Your task to perform on an android device: Search for seafood restaurants on Google Maps Image 0: 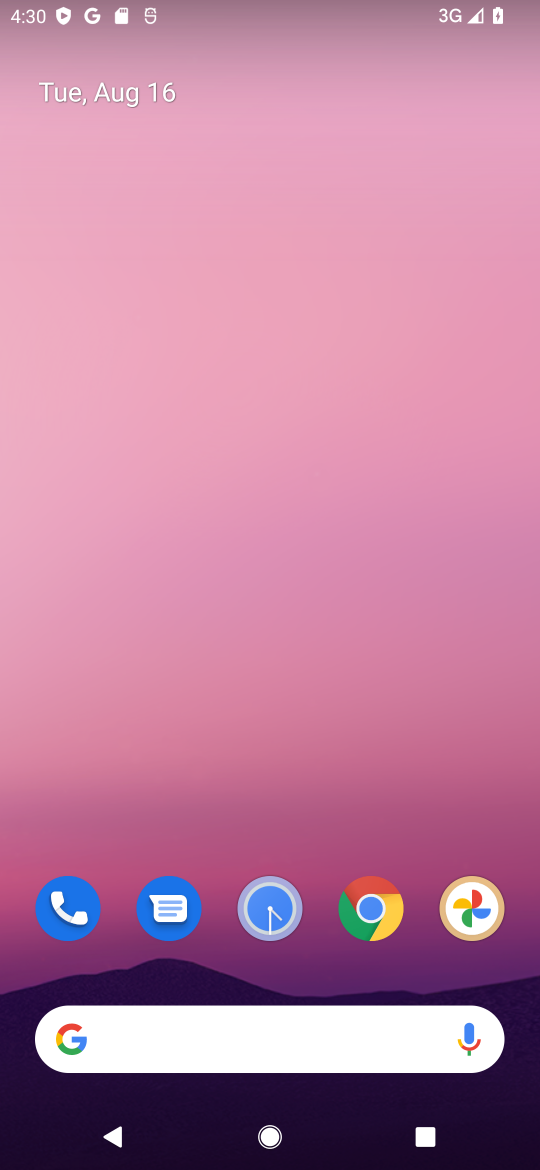
Step 0: drag from (249, 1010) to (364, 303)
Your task to perform on an android device: Search for seafood restaurants on Google Maps Image 1: 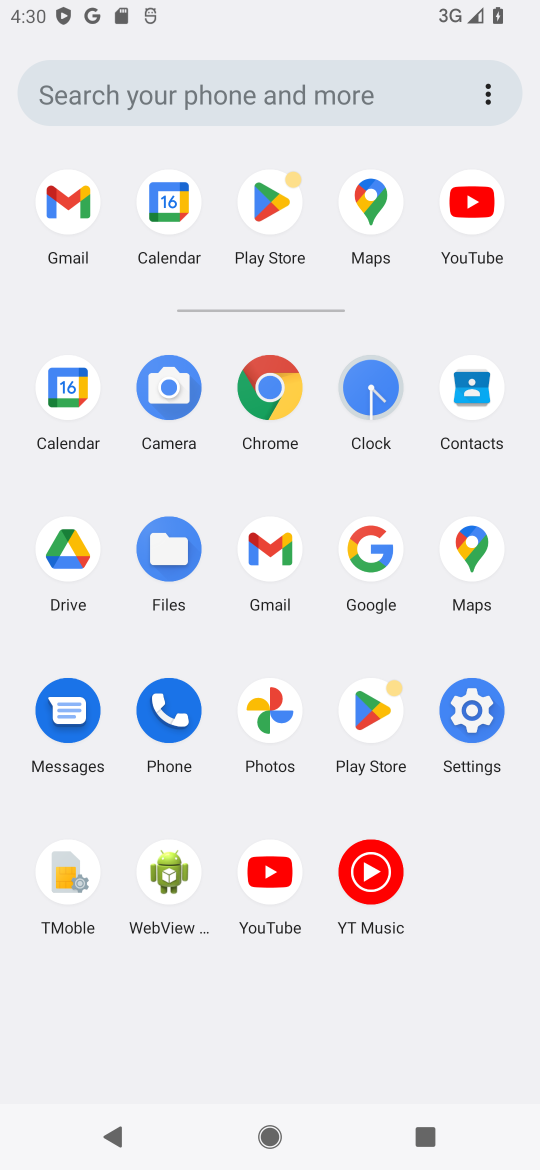
Step 1: click (475, 546)
Your task to perform on an android device: Search for seafood restaurants on Google Maps Image 2: 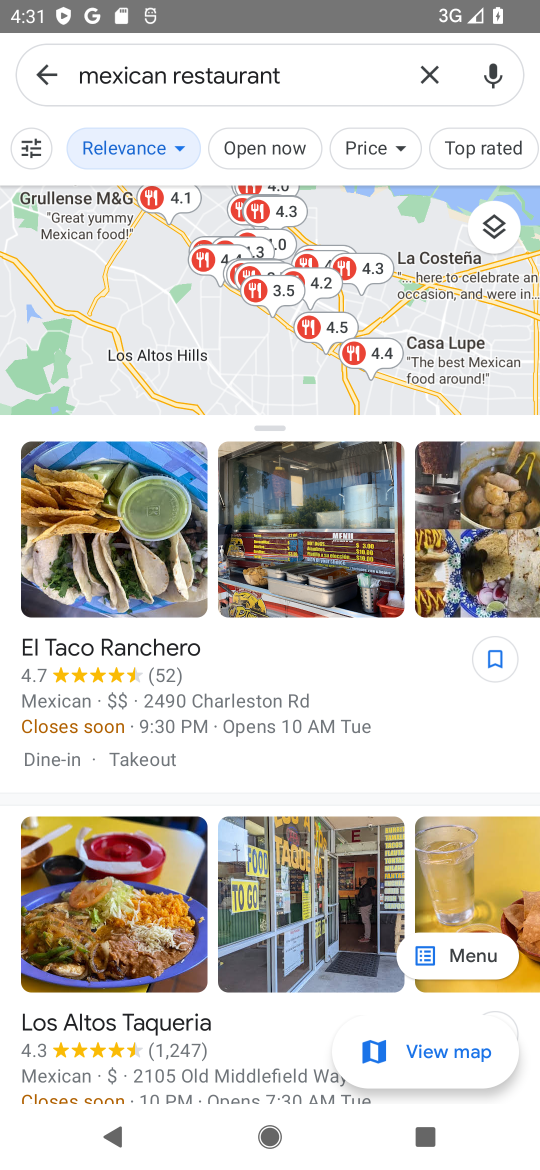
Step 2: click (426, 71)
Your task to perform on an android device: Search for seafood restaurants on Google Maps Image 3: 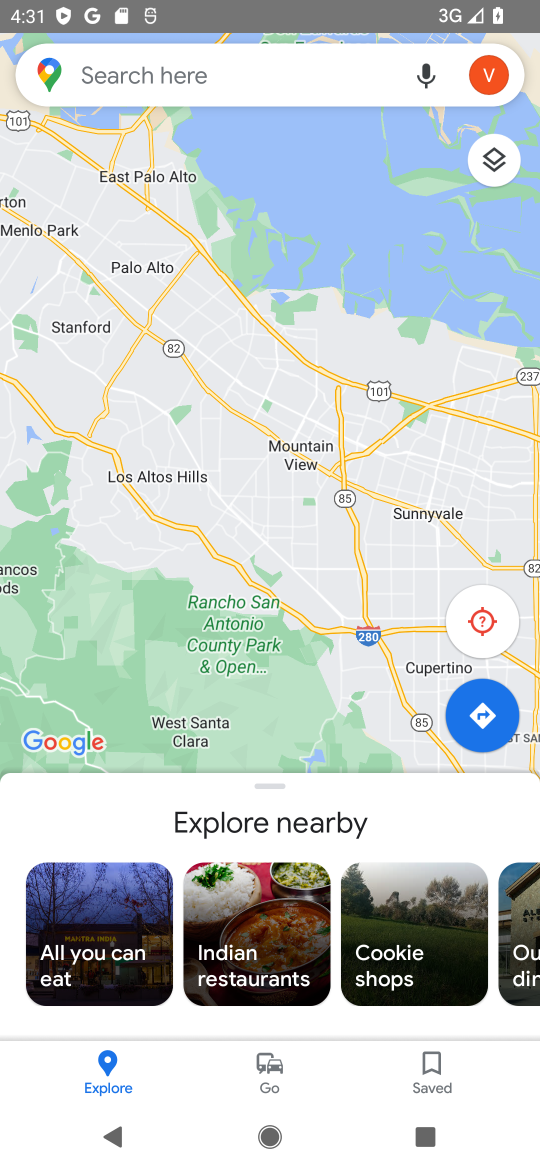
Step 3: click (205, 89)
Your task to perform on an android device: Search for seafood restaurants on Google Maps Image 4: 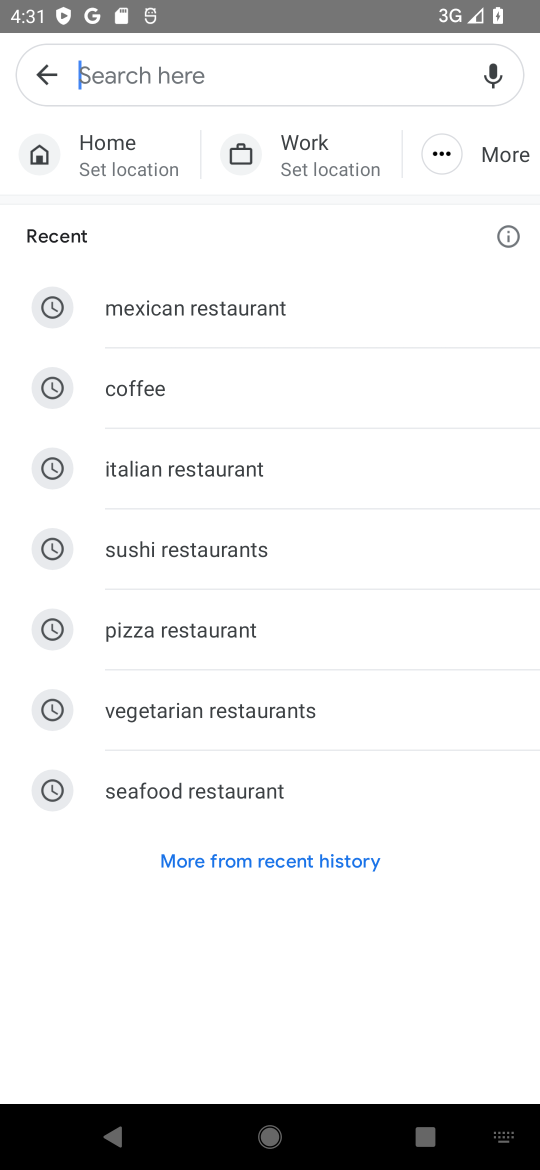
Step 4: click (166, 773)
Your task to perform on an android device: Search for seafood restaurants on Google Maps Image 5: 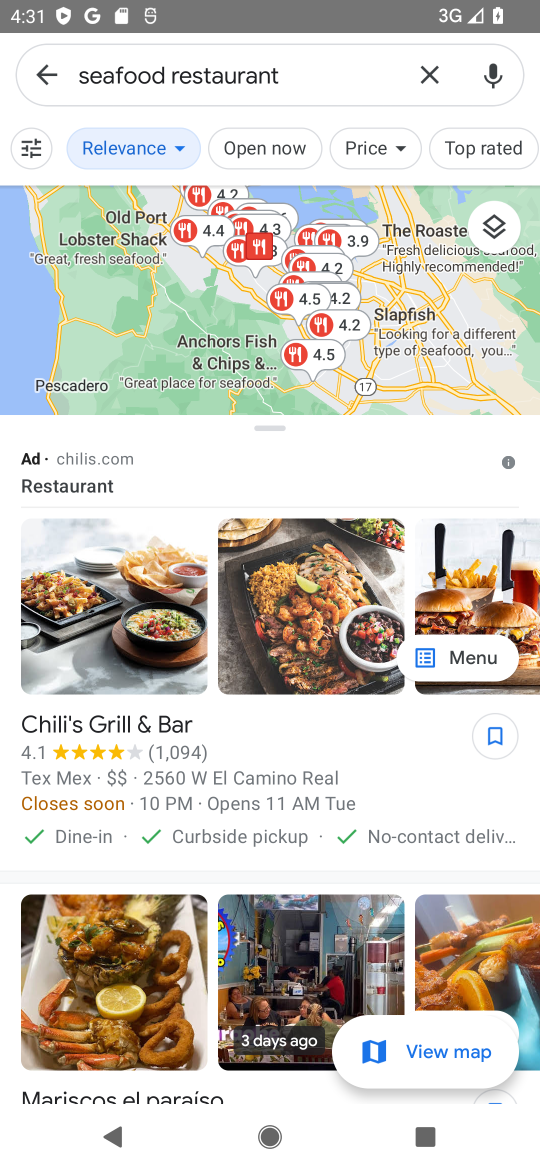
Step 5: task complete